Your task to perform on an android device: check the backup settings in the google photos Image 0: 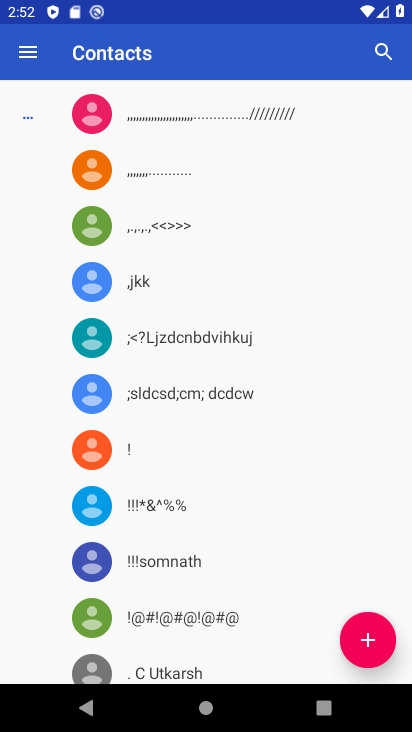
Step 0: press home button
Your task to perform on an android device: check the backup settings in the google photos Image 1: 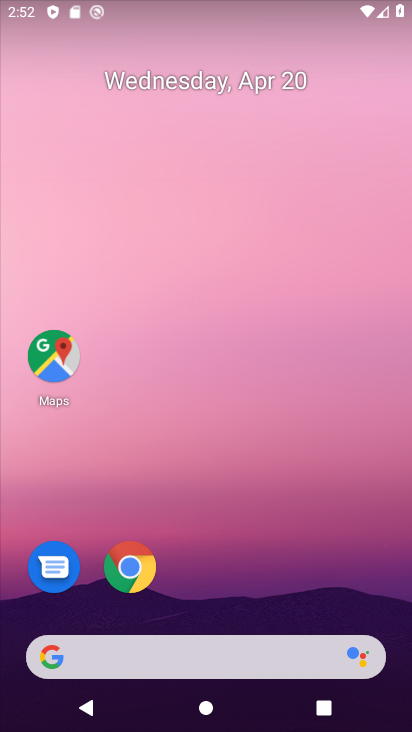
Step 1: drag from (335, 559) to (263, 146)
Your task to perform on an android device: check the backup settings in the google photos Image 2: 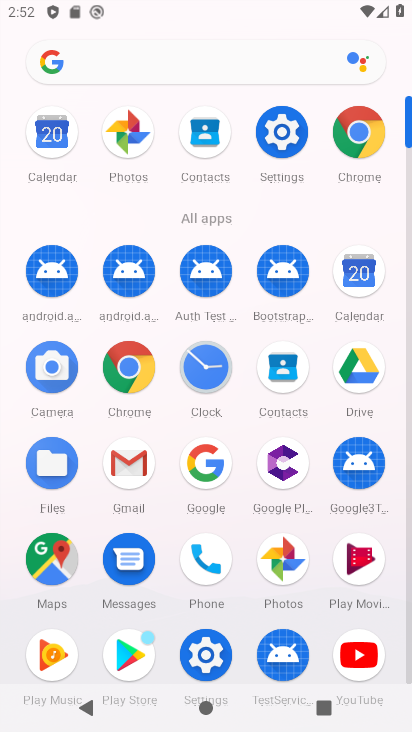
Step 2: click (135, 153)
Your task to perform on an android device: check the backup settings in the google photos Image 3: 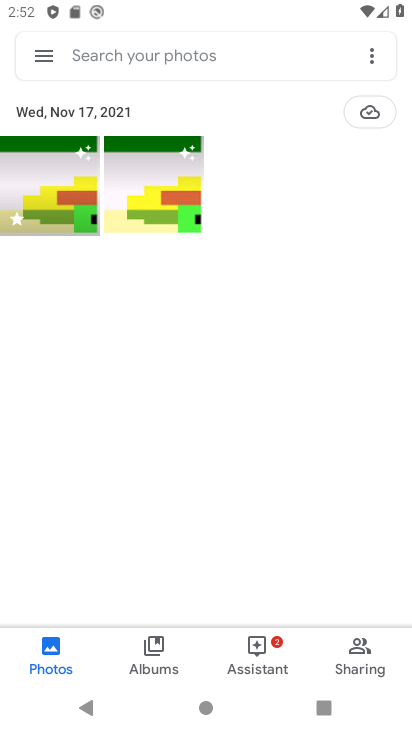
Step 3: click (47, 69)
Your task to perform on an android device: check the backup settings in the google photos Image 4: 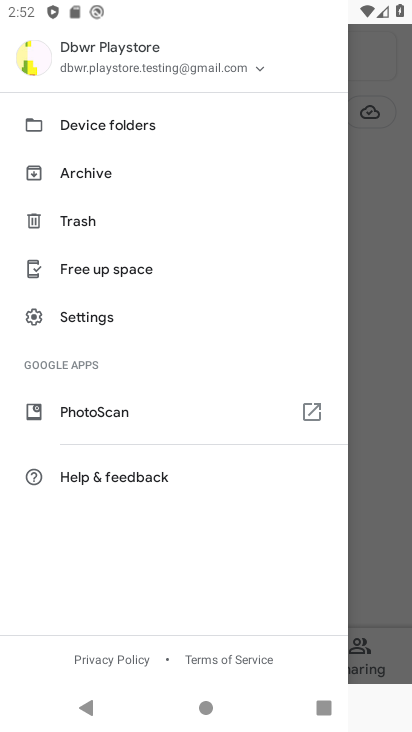
Step 4: click (179, 306)
Your task to perform on an android device: check the backup settings in the google photos Image 5: 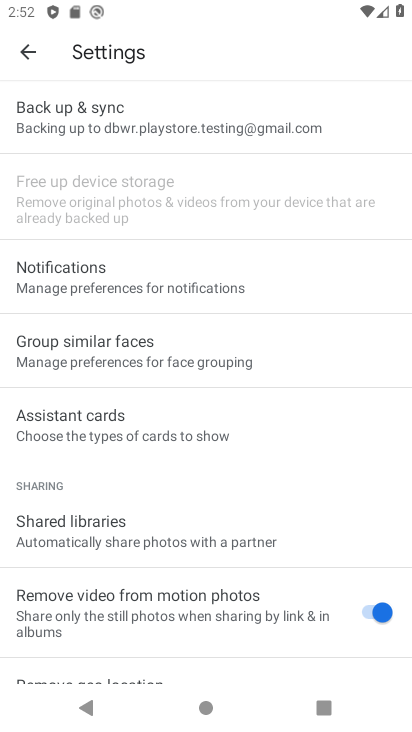
Step 5: click (231, 120)
Your task to perform on an android device: check the backup settings in the google photos Image 6: 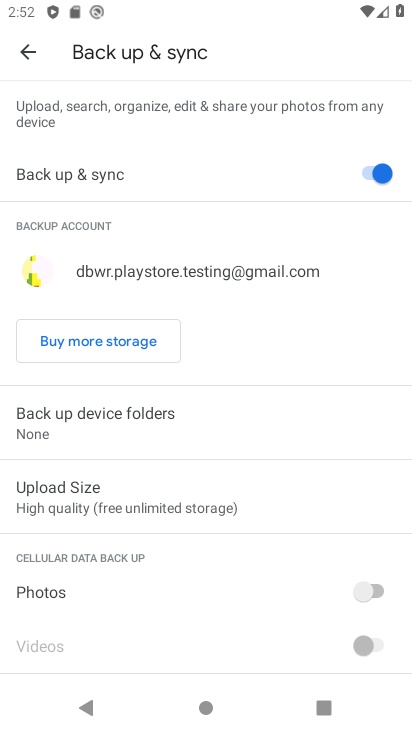
Step 6: task complete